Your task to perform on an android device: Open Google Image 0: 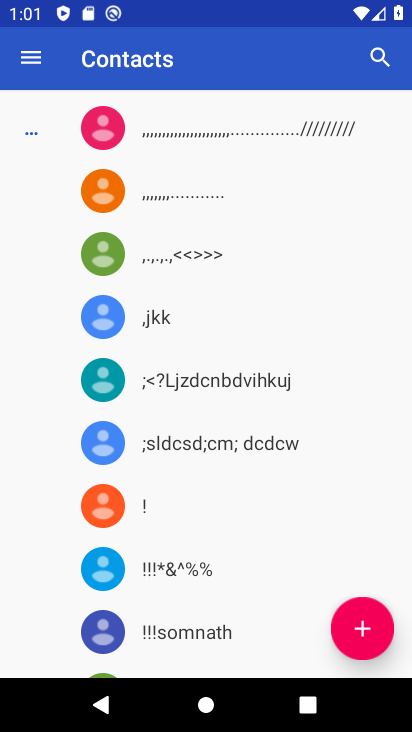
Step 0: press home button
Your task to perform on an android device: Open Google Image 1: 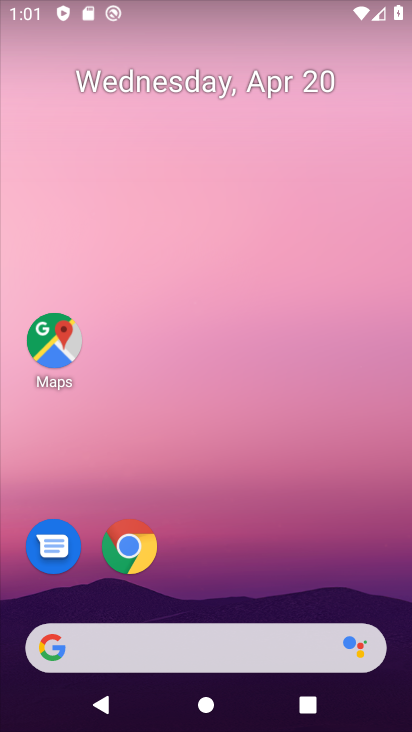
Step 1: drag from (263, 548) to (301, 237)
Your task to perform on an android device: Open Google Image 2: 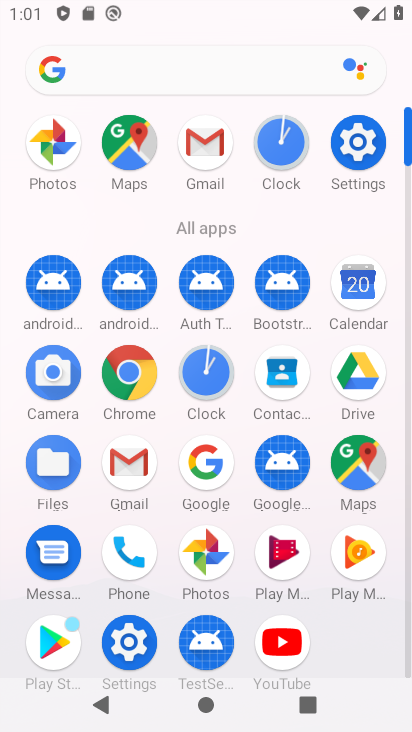
Step 2: click (210, 463)
Your task to perform on an android device: Open Google Image 3: 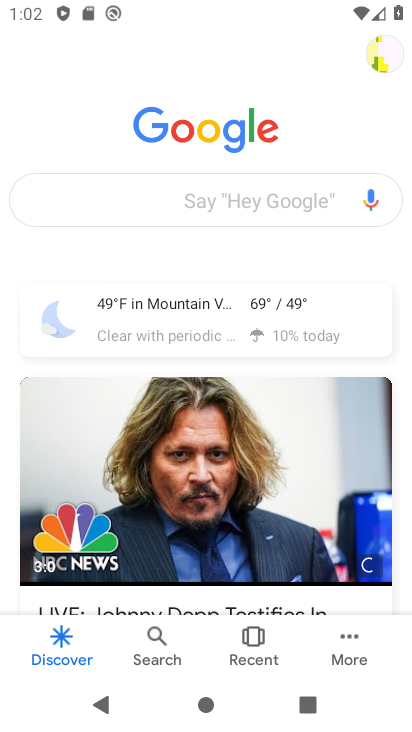
Step 3: task complete